Your task to perform on an android device: Go to Yahoo.com Image 0: 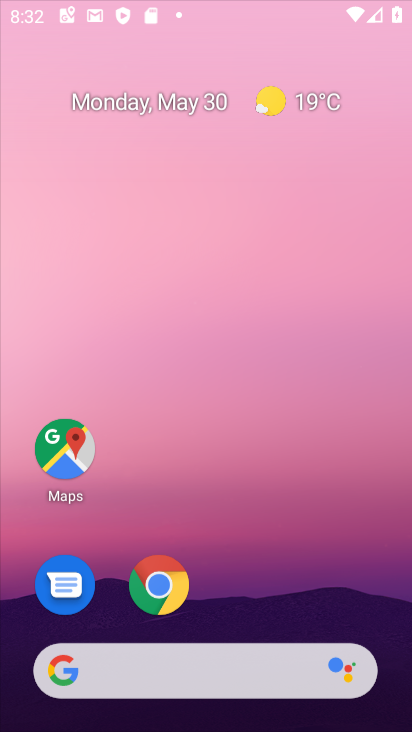
Step 0: click (304, 77)
Your task to perform on an android device: Go to Yahoo.com Image 1: 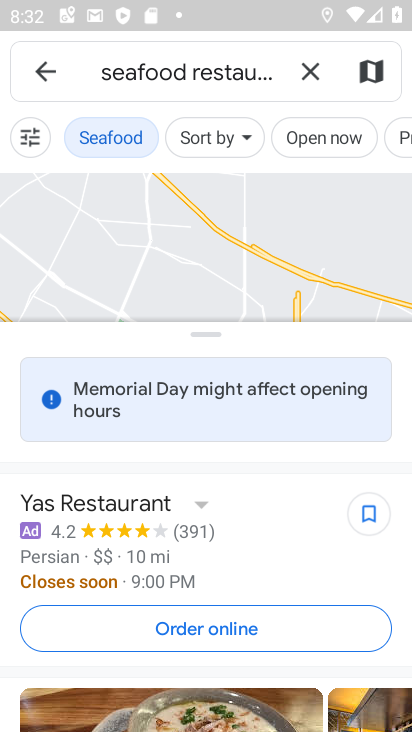
Step 1: drag from (235, 500) to (306, 157)
Your task to perform on an android device: Go to Yahoo.com Image 2: 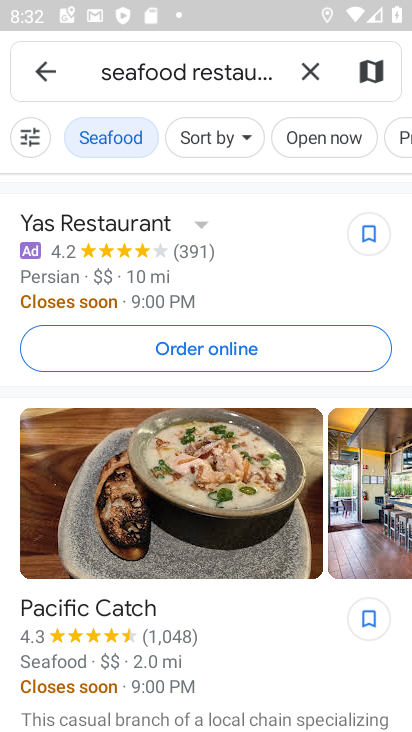
Step 2: press home button
Your task to perform on an android device: Go to Yahoo.com Image 3: 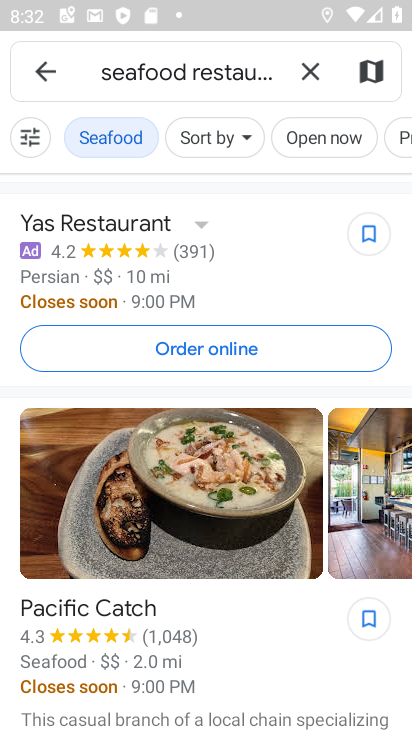
Step 3: drag from (96, 529) to (353, 42)
Your task to perform on an android device: Go to Yahoo.com Image 4: 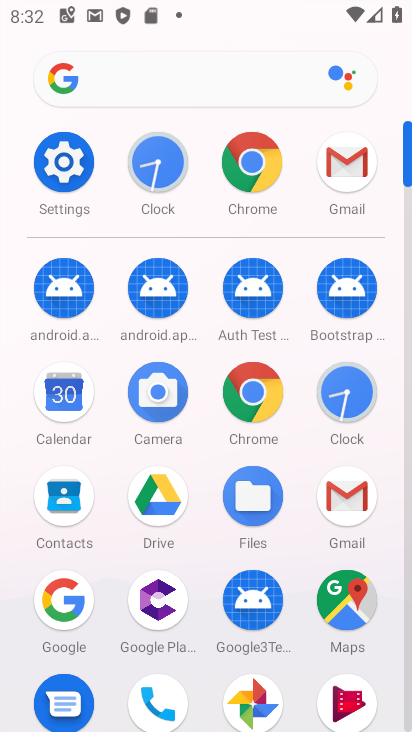
Step 4: click (365, 594)
Your task to perform on an android device: Go to Yahoo.com Image 5: 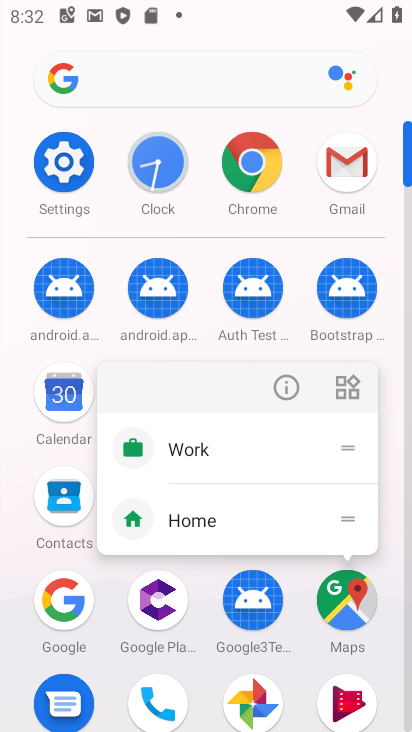
Step 5: click (112, 82)
Your task to perform on an android device: Go to Yahoo.com Image 6: 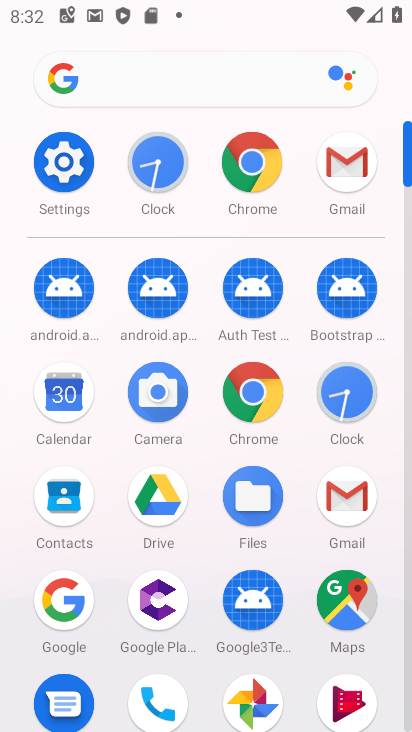
Step 6: click (114, 84)
Your task to perform on an android device: Go to Yahoo.com Image 7: 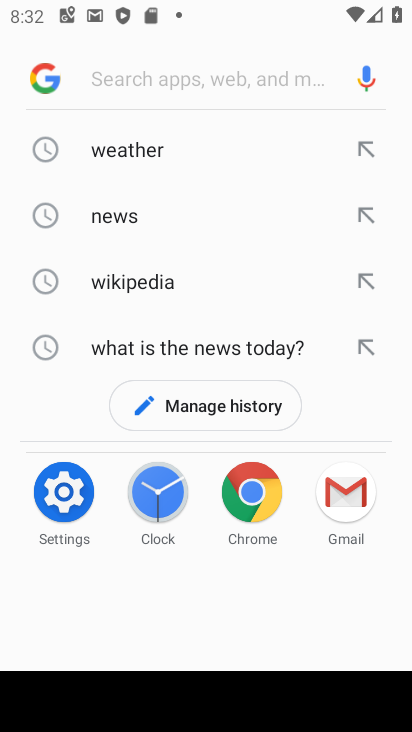
Step 7: click (115, 84)
Your task to perform on an android device: Go to Yahoo.com Image 8: 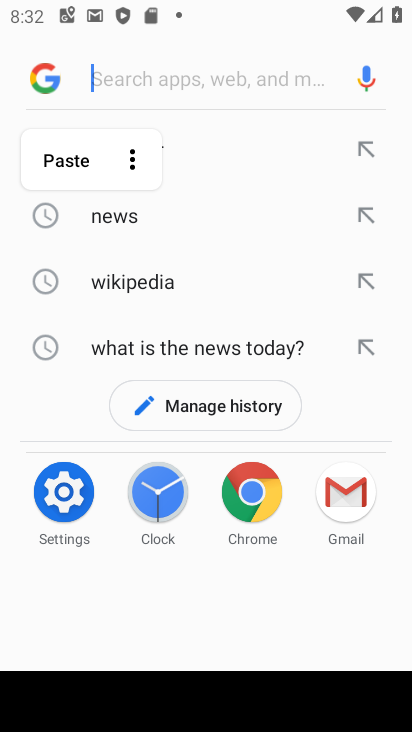
Step 8: type "Yahoo.com"
Your task to perform on an android device: Go to Yahoo.com Image 9: 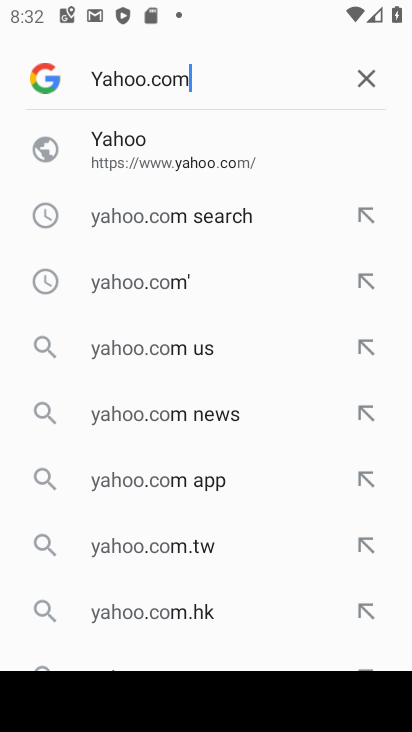
Step 9: type ""
Your task to perform on an android device: Go to Yahoo.com Image 10: 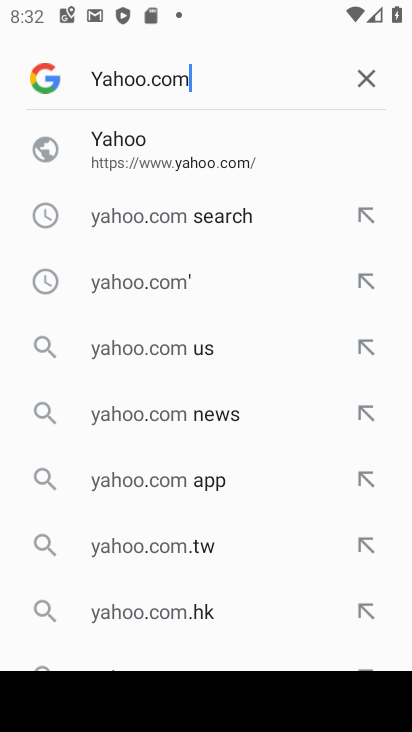
Step 10: click (107, 128)
Your task to perform on an android device: Go to Yahoo.com Image 11: 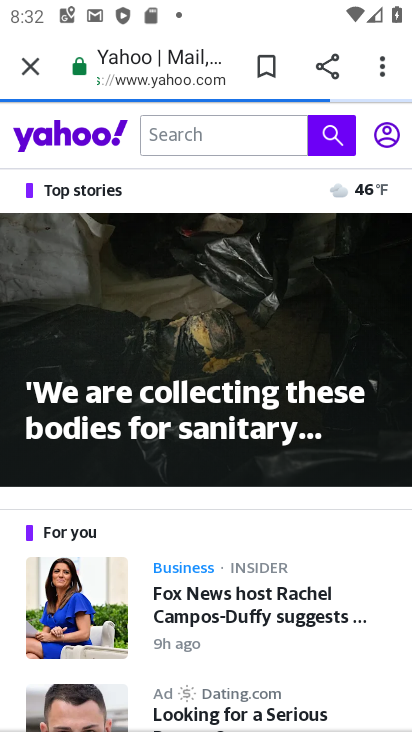
Step 11: task complete